Your task to perform on an android device: turn off wifi Image 0: 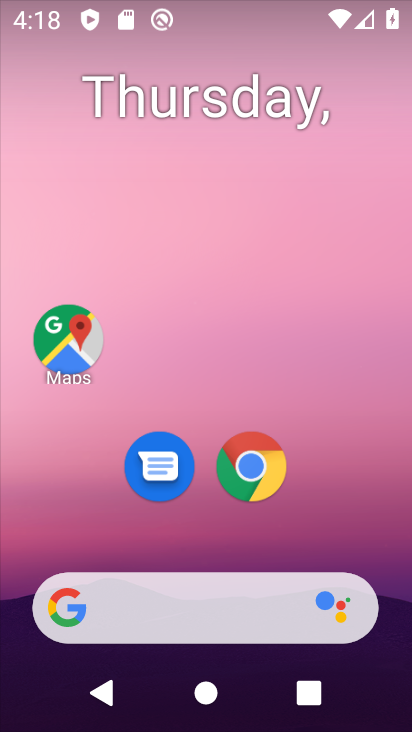
Step 0: drag from (336, 522) to (338, 34)
Your task to perform on an android device: turn off wifi Image 1: 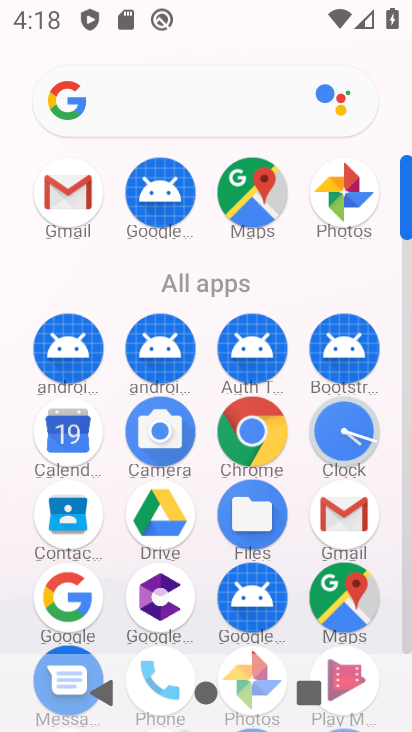
Step 1: drag from (395, 578) to (404, 142)
Your task to perform on an android device: turn off wifi Image 2: 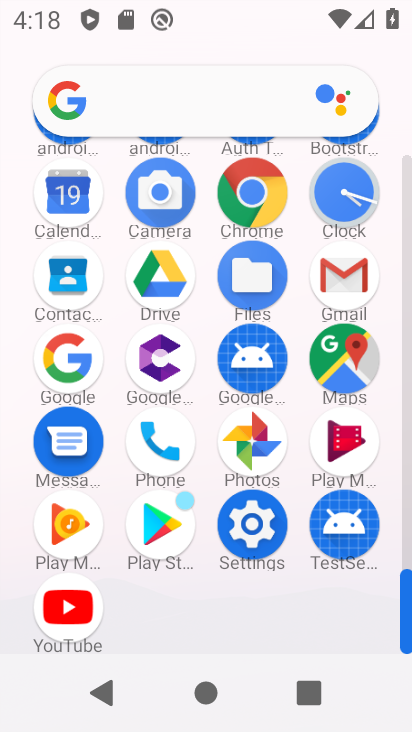
Step 2: click (250, 533)
Your task to perform on an android device: turn off wifi Image 3: 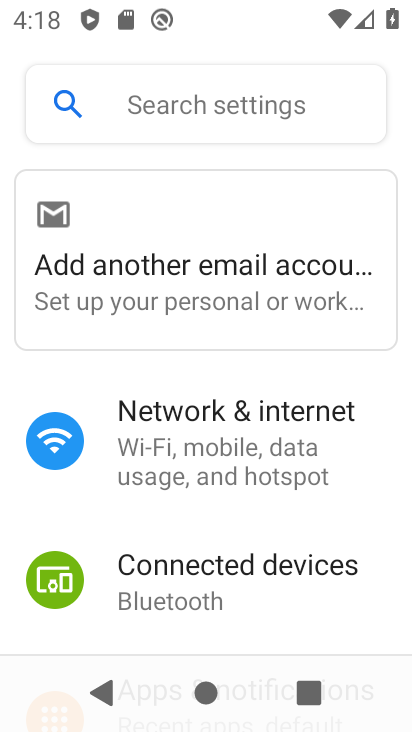
Step 3: click (224, 434)
Your task to perform on an android device: turn off wifi Image 4: 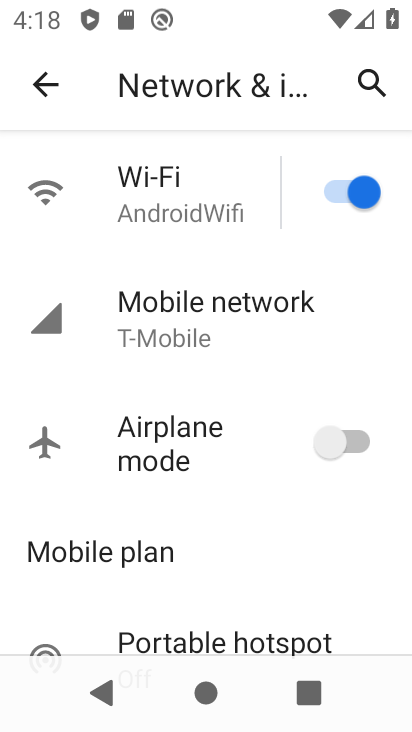
Step 4: click (345, 189)
Your task to perform on an android device: turn off wifi Image 5: 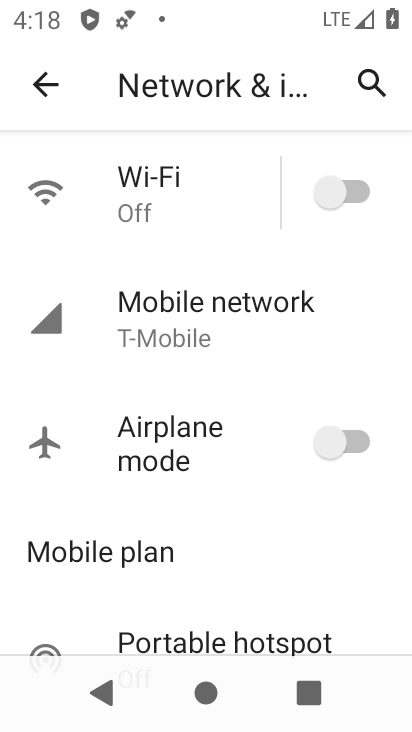
Step 5: task complete